Your task to perform on an android device: open chrome and create a bookmark for the current page Image 0: 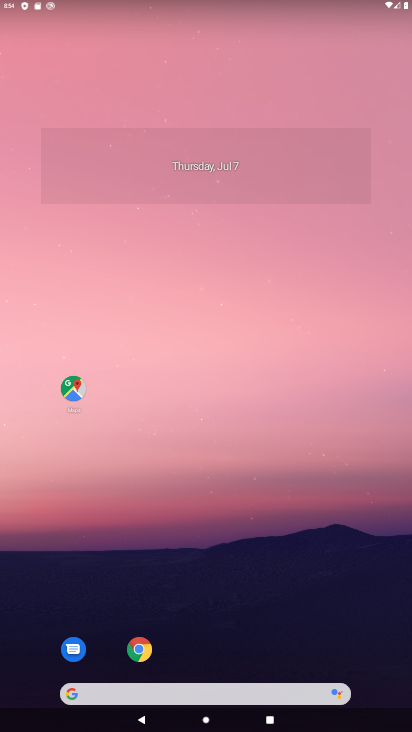
Step 0: click (137, 650)
Your task to perform on an android device: open chrome and create a bookmark for the current page Image 1: 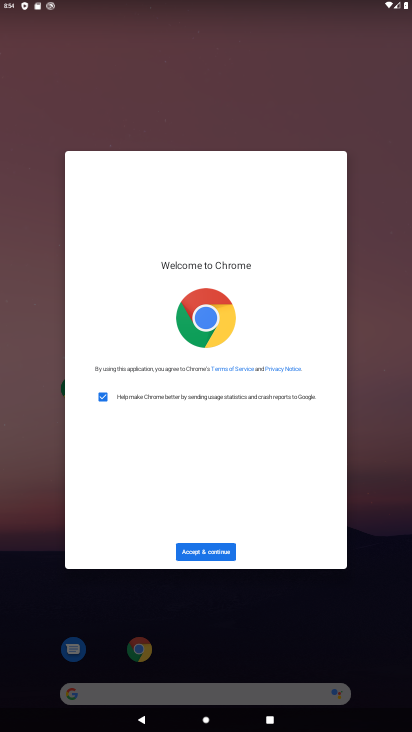
Step 1: click (209, 547)
Your task to perform on an android device: open chrome and create a bookmark for the current page Image 2: 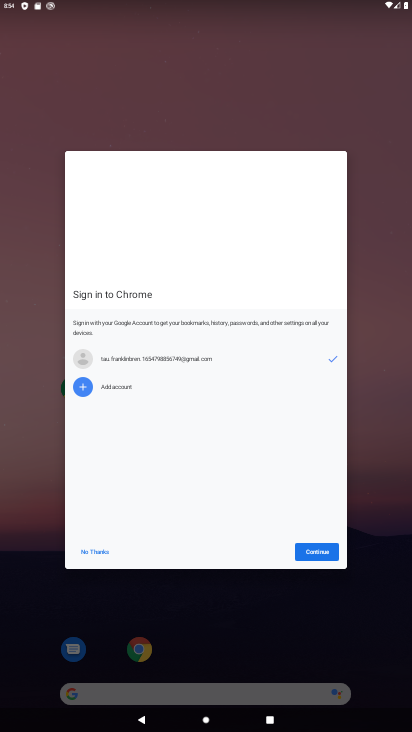
Step 2: click (321, 549)
Your task to perform on an android device: open chrome and create a bookmark for the current page Image 3: 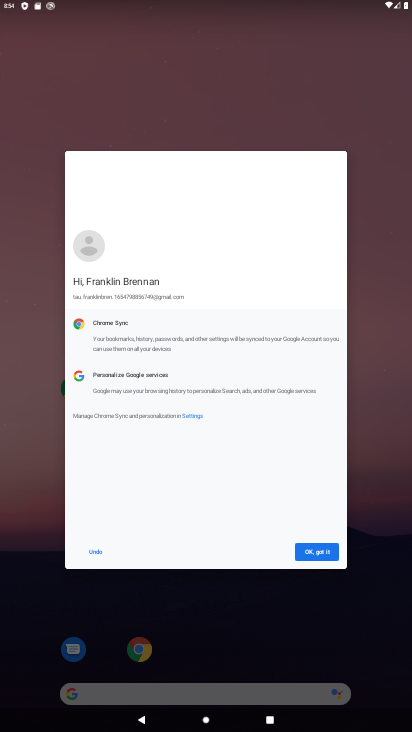
Step 3: click (324, 558)
Your task to perform on an android device: open chrome and create a bookmark for the current page Image 4: 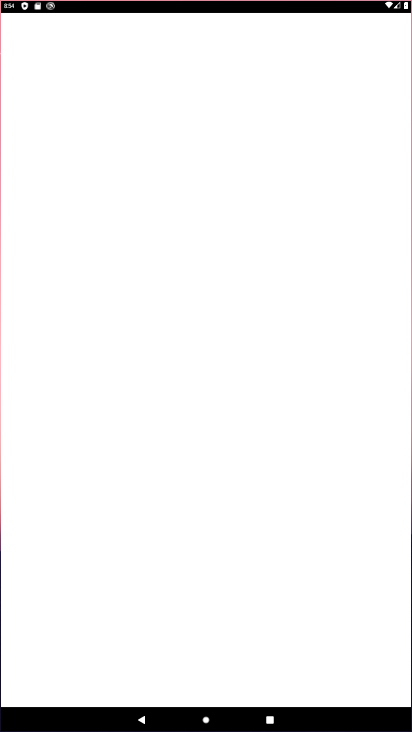
Step 4: click (314, 548)
Your task to perform on an android device: open chrome and create a bookmark for the current page Image 5: 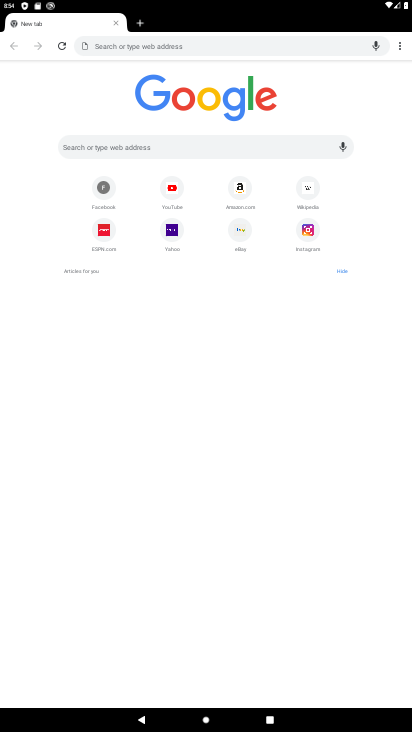
Step 5: click (400, 50)
Your task to perform on an android device: open chrome and create a bookmark for the current page Image 6: 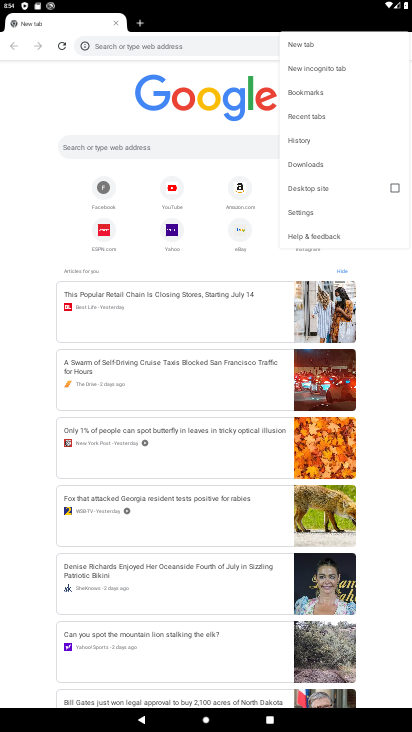
Step 6: click (325, 91)
Your task to perform on an android device: open chrome and create a bookmark for the current page Image 7: 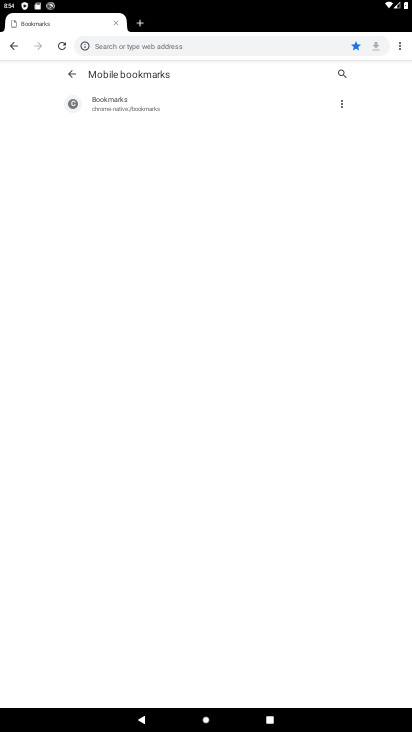
Step 7: click (8, 41)
Your task to perform on an android device: open chrome and create a bookmark for the current page Image 8: 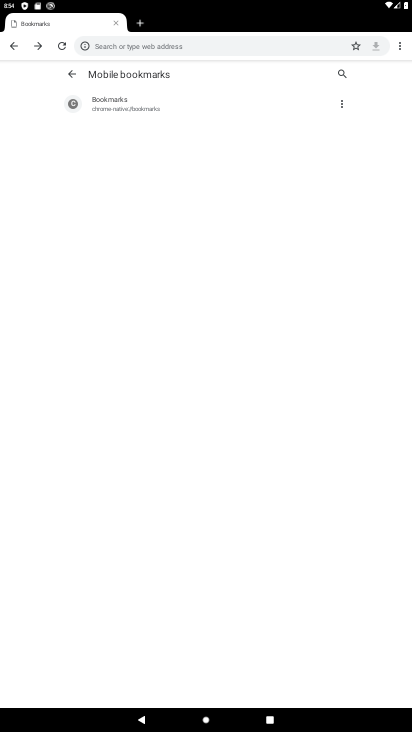
Step 8: click (356, 41)
Your task to perform on an android device: open chrome and create a bookmark for the current page Image 9: 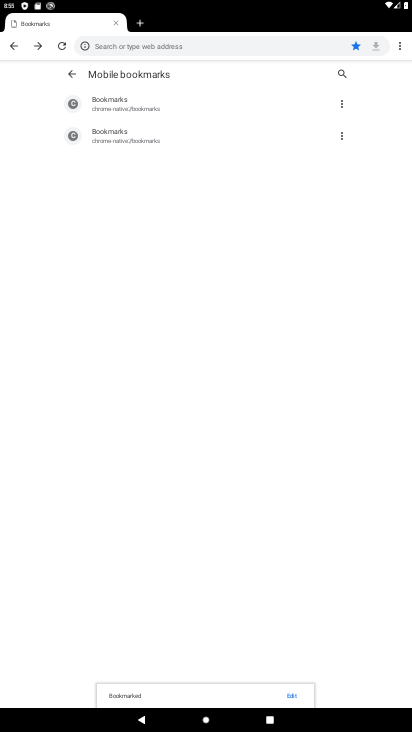
Step 9: task complete